Your task to perform on an android device: show emergency info Image 0: 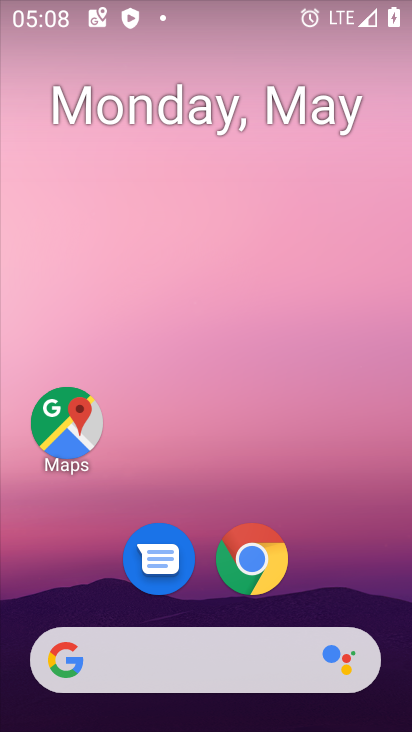
Step 0: press home button
Your task to perform on an android device: show emergency info Image 1: 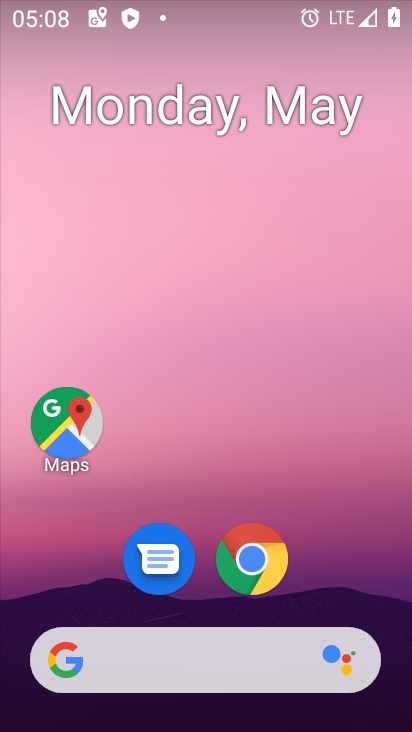
Step 1: drag from (295, 615) to (346, 34)
Your task to perform on an android device: show emergency info Image 2: 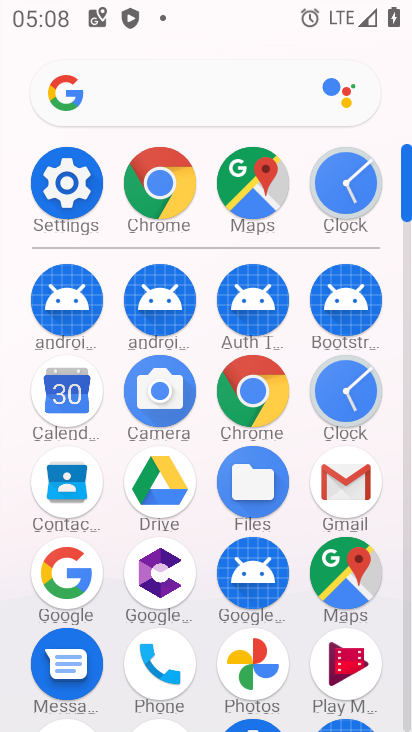
Step 2: click (75, 164)
Your task to perform on an android device: show emergency info Image 3: 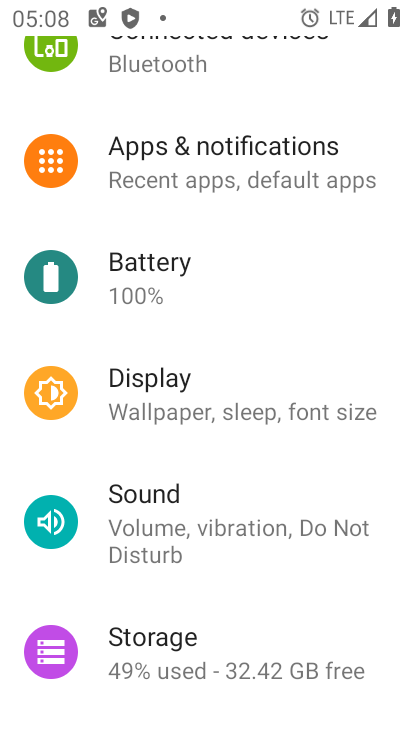
Step 3: drag from (176, 659) to (197, 7)
Your task to perform on an android device: show emergency info Image 4: 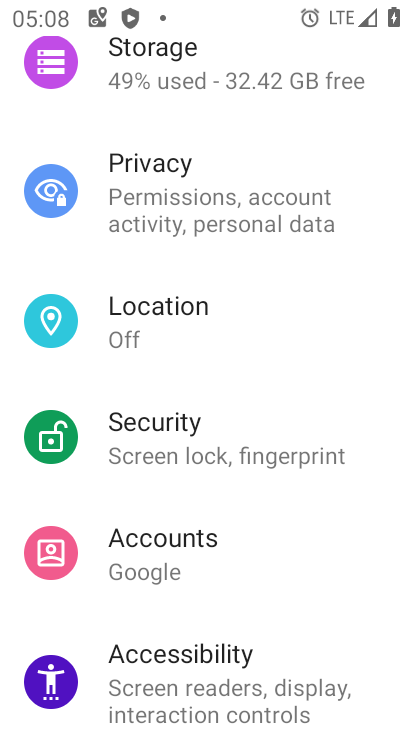
Step 4: drag from (231, 688) to (266, 86)
Your task to perform on an android device: show emergency info Image 5: 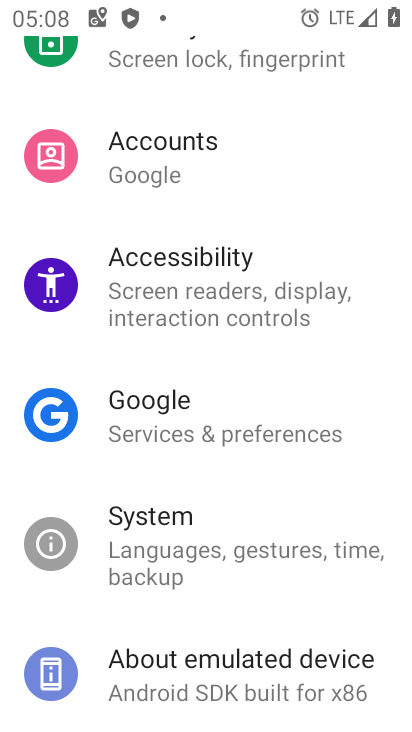
Step 5: click (250, 660)
Your task to perform on an android device: show emergency info Image 6: 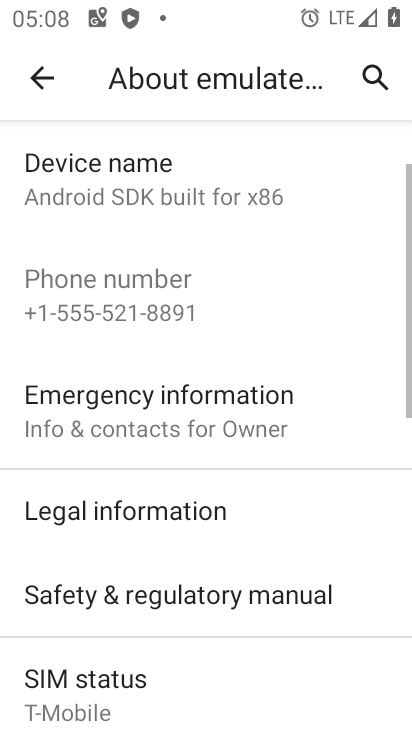
Step 6: click (213, 418)
Your task to perform on an android device: show emergency info Image 7: 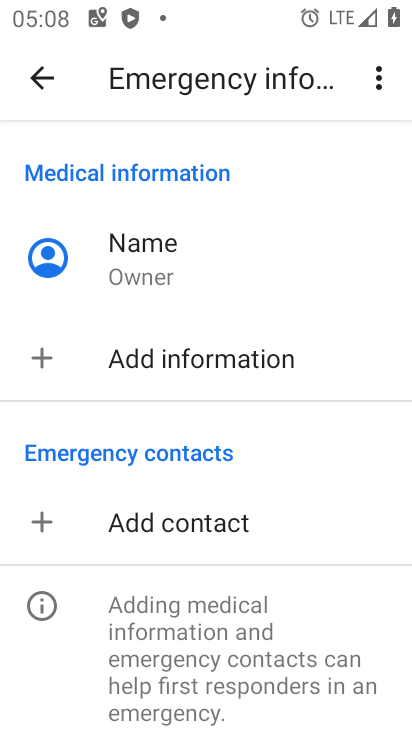
Step 7: task complete